Your task to perform on an android device: toggle translation in the chrome app Image 0: 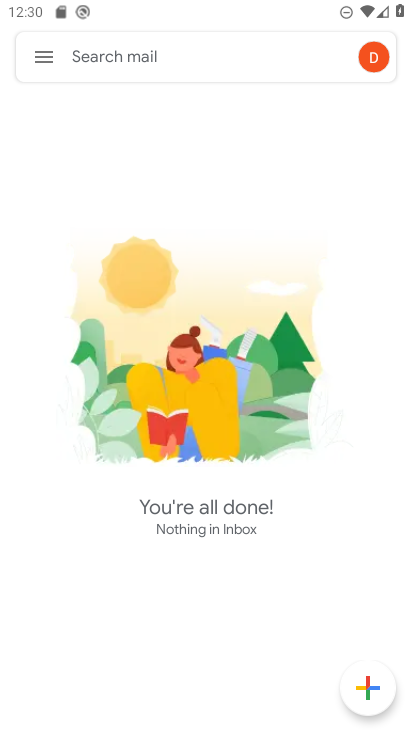
Step 0: press home button
Your task to perform on an android device: toggle translation in the chrome app Image 1: 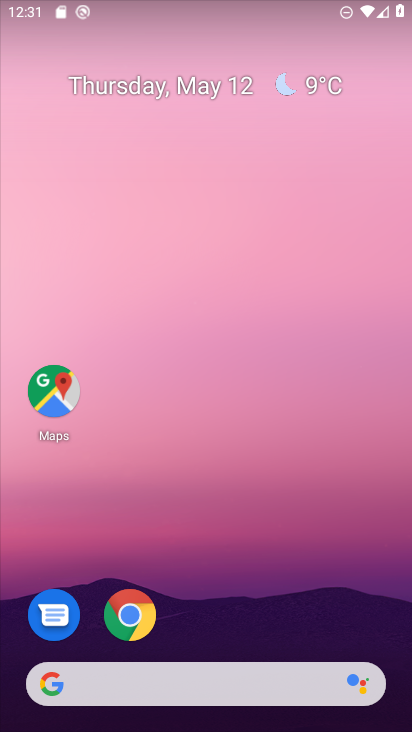
Step 1: click (134, 613)
Your task to perform on an android device: toggle translation in the chrome app Image 2: 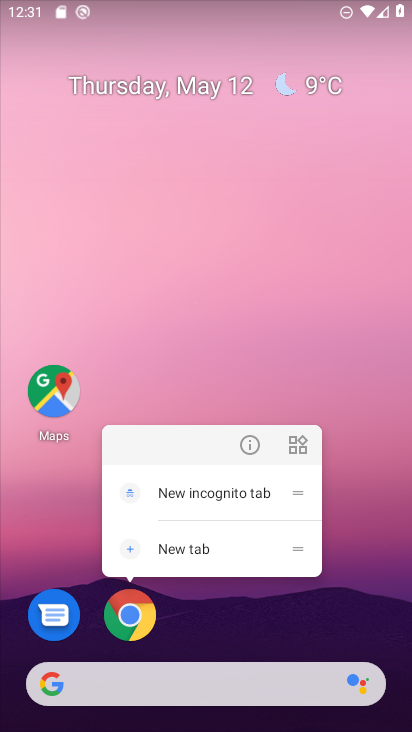
Step 2: click (138, 608)
Your task to perform on an android device: toggle translation in the chrome app Image 3: 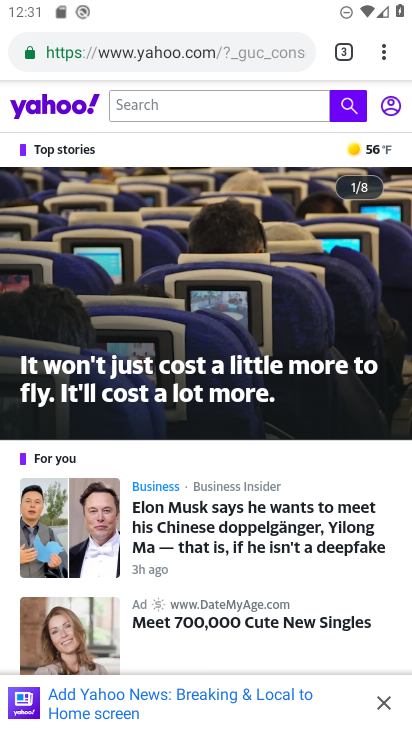
Step 3: drag from (388, 47) to (203, 626)
Your task to perform on an android device: toggle translation in the chrome app Image 4: 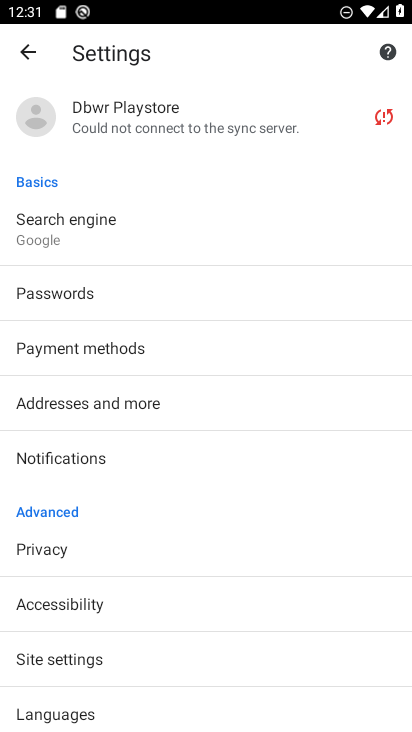
Step 4: drag from (249, 607) to (237, 76)
Your task to perform on an android device: toggle translation in the chrome app Image 5: 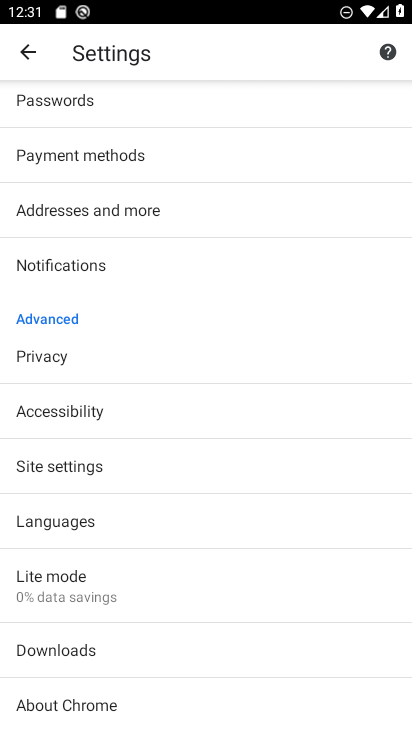
Step 5: click (42, 590)
Your task to perform on an android device: toggle translation in the chrome app Image 6: 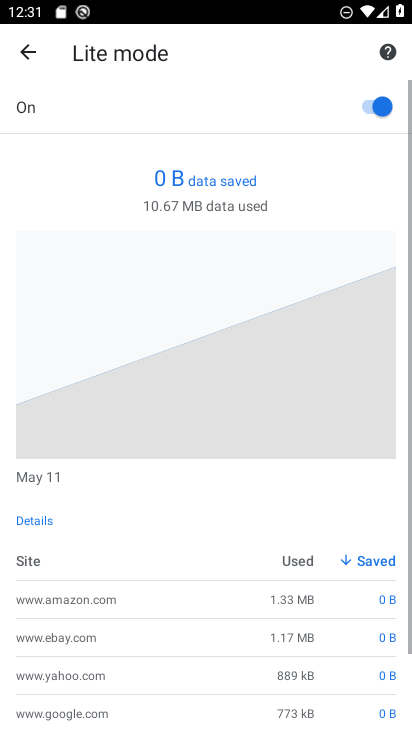
Step 6: click (29, 56)
Your task to perform on an android device: toggle translation in the chrome app Image 7: 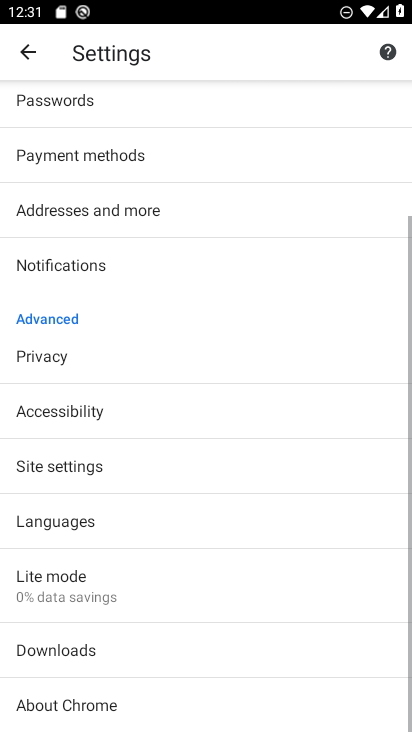
Step 7: click (98, 524)
Your task to perform on an android device: toggle translation in the chrome app Image 8: 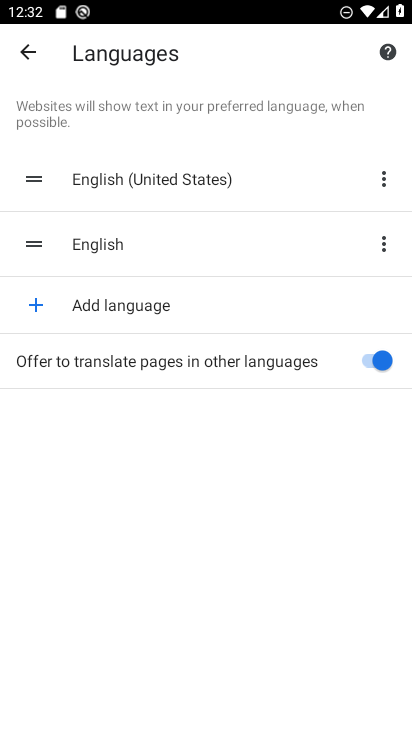
Step 8: task complete